Your task to perform on an android device: Open Google Maps Image 0: 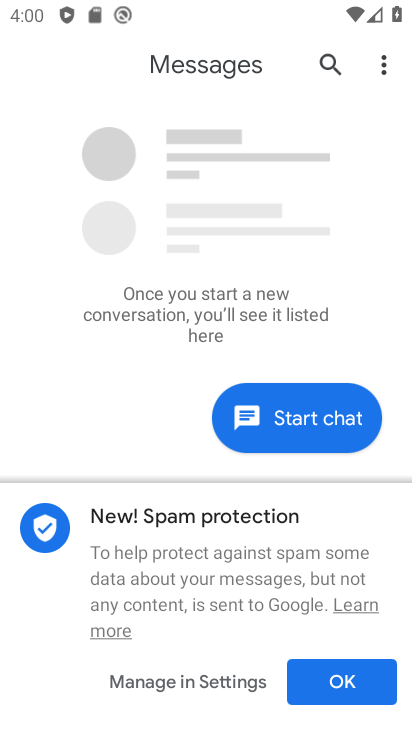
Step 0: press home button
Your task to perform on an android device: Open Google Maps Image 1: 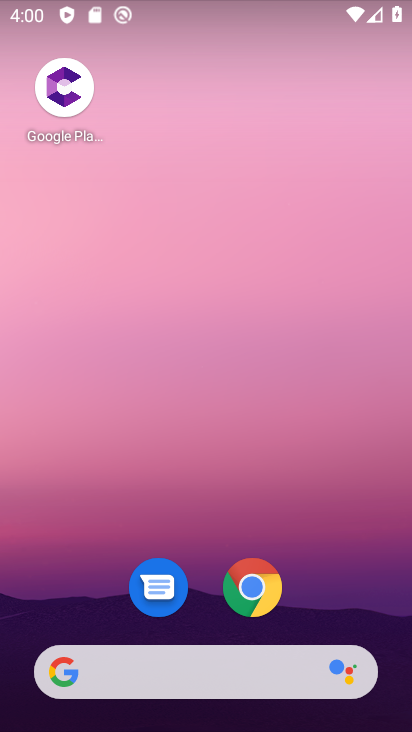
Step 1: drag from (300, 606) to (309, 209)
Your task to perform on an android device: Open Google Maps Image 2: 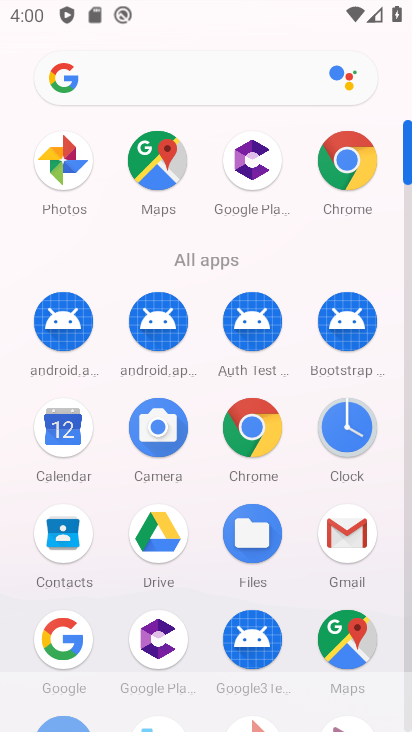
Step 2: click (153, 162)
Your task to perform on an android device: Open Google Maps Image 3: 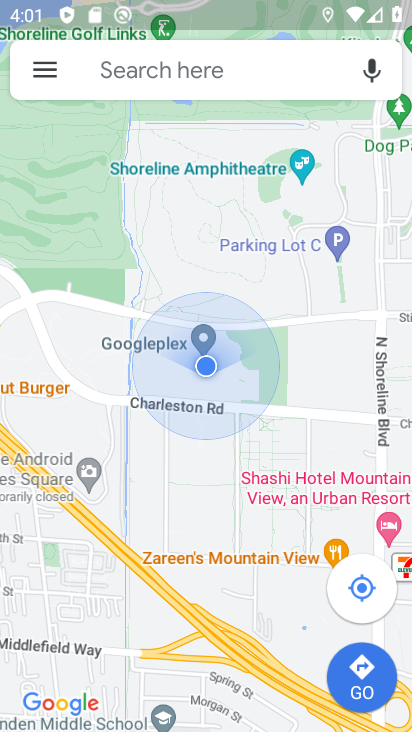
Step 3: task complete